Your task to perform on an android device: turn off notifications in google photos Image 0: 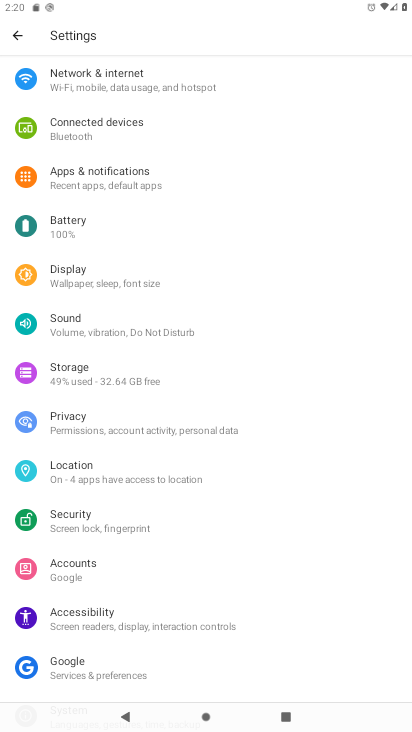
Step 0: press home button
Your task to perform on an android device: turn off notifications in google photos Image 1: 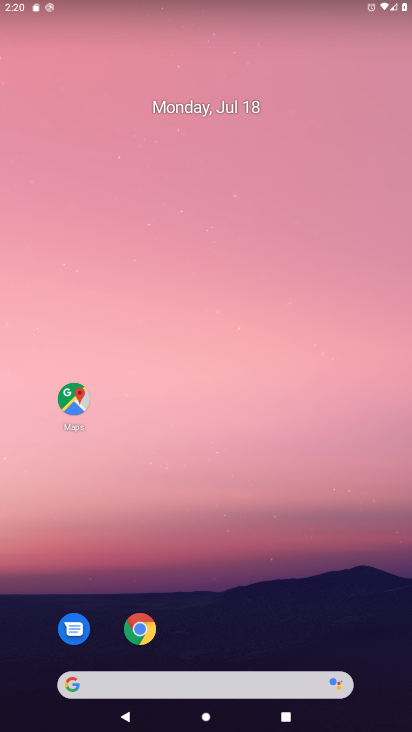
Step 1: drag from (226, 495) to (250, 19)
Your task to perform on an android device: turn off notifications in google photos Image 2: 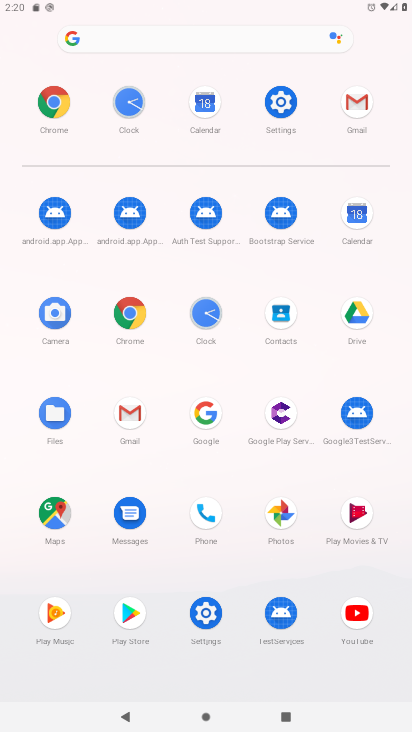
Step 2: click (275, 114)
Your task to perform on an android device: turn off notifications in google photos Image 3: 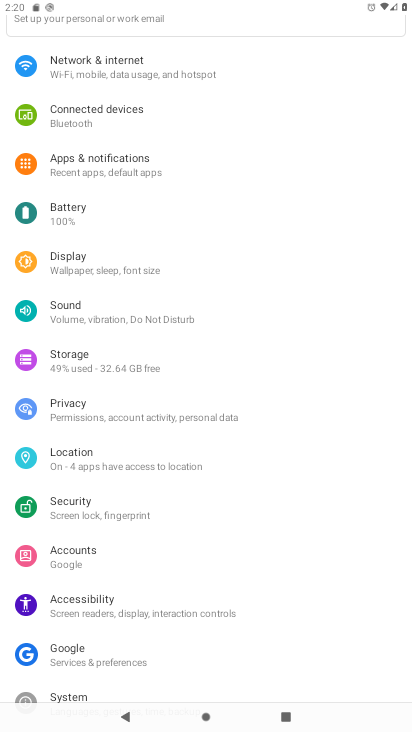
Step 3: click (115, 176)
Your task to perform on an android device: turn off notifications in google photos Image 4: 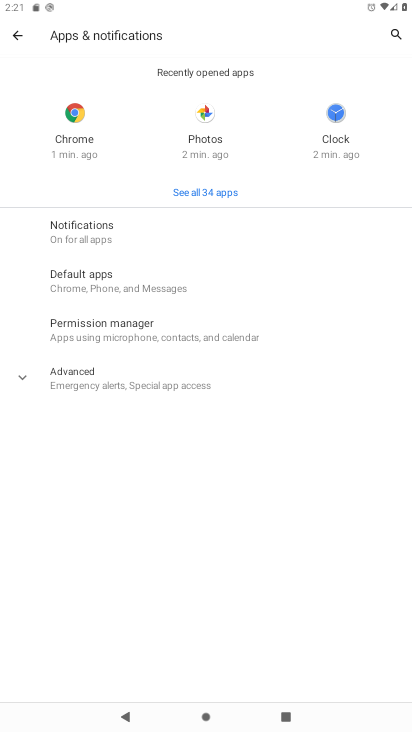
Step 4: press home button
Your task to perform on an android device: turn off notifications in google photos Image 5: 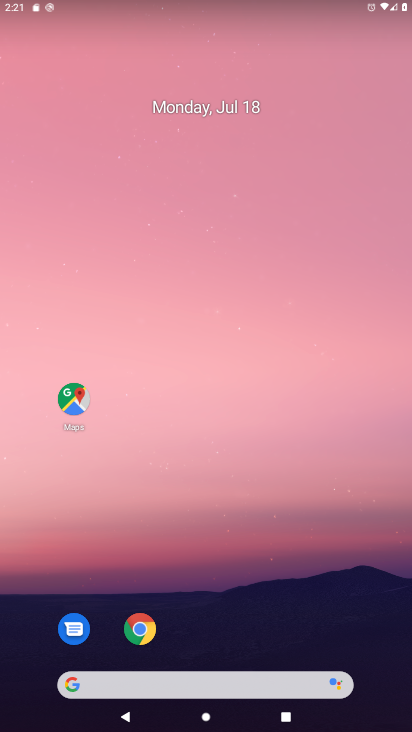
Step 5: drag from (198, 546) to (206, 272)
Your task to perform on an android device: turn off notifications in google photos Image 6: 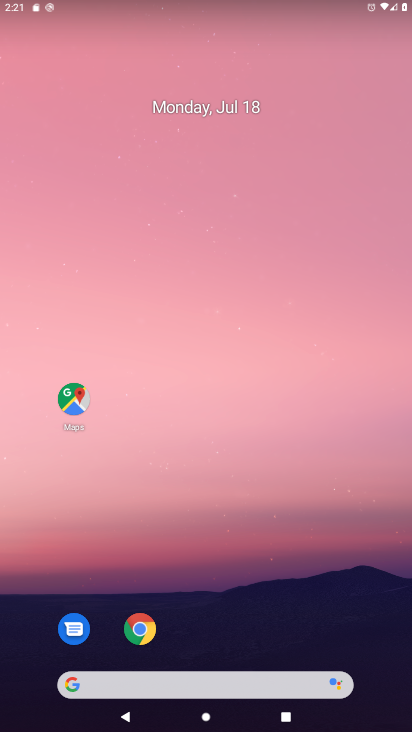
Step 6: drag from (217, 515) to (226, 241)
Your task to perform on an android device: turn off notifications in google photos Image 7: 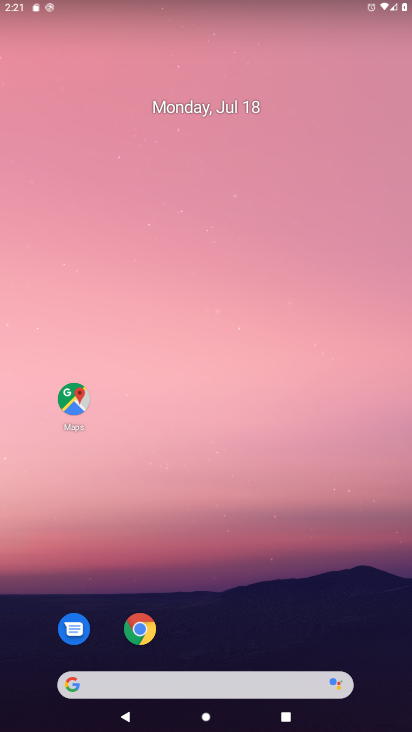
Step 7: drag from (197, 78) to (212, 32)
Your task to perform on an android device: turn off notifications in google photos Image 8: 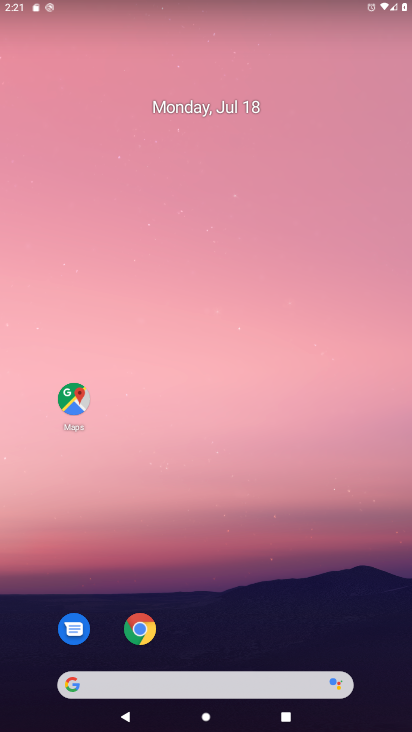
Step 8: drag from (185, 430) to (183, 21)
Your task to perform on an android device: turn off notifications in google photos Image 9: 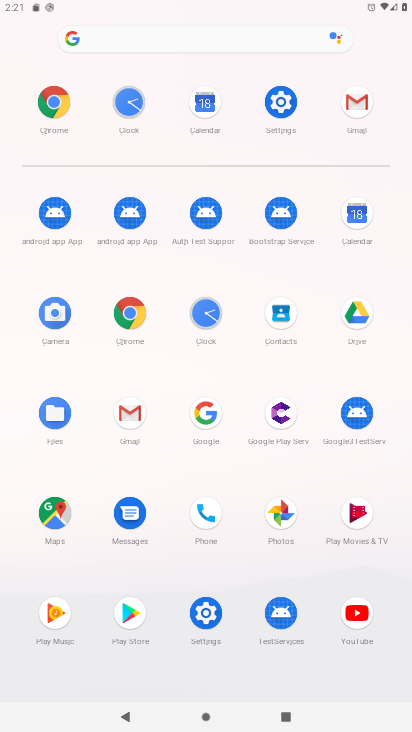
Step 9: click (280, 518)
Your task to perform on an android device: turn off notifications in google photos Image 10: 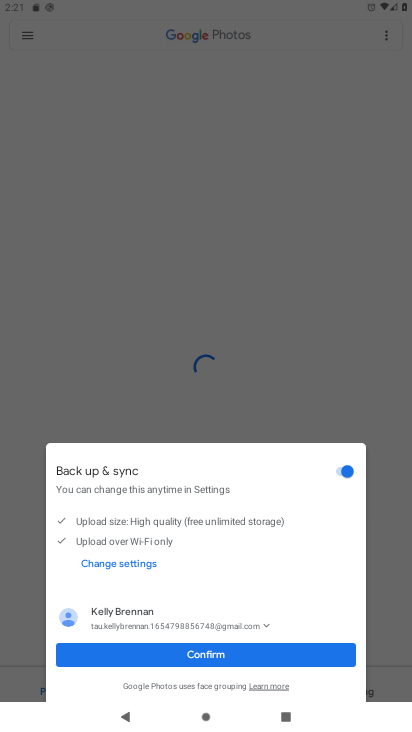
Step 10: click (204, 650)
Your task to perform on an android device: turn off notifications in google photos Image 11: 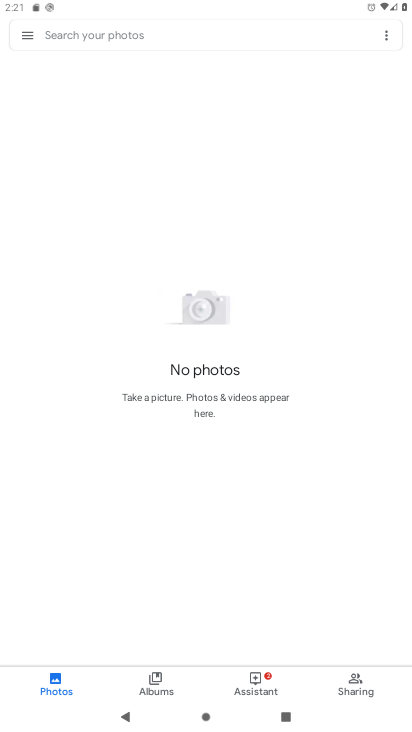
Step 11: click (23, 33)
Your task to perform on an android device: turn off notifications in google photos Image 12: 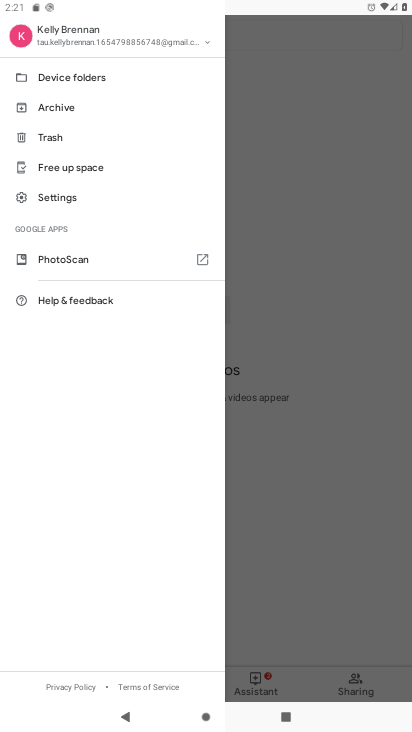
Step 12: click (64, 193)
Your task to perform on an android device: turn off notifications in google photos Image 13: 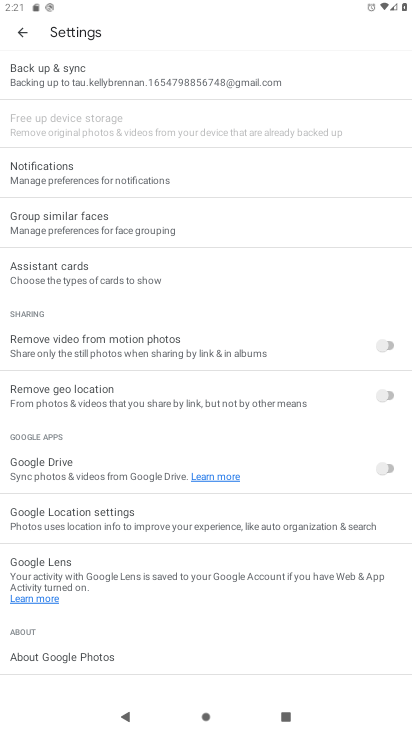
Step 13: click (51, 189)
Your task to perform on an android device: turn off notifications in google photos Image 14: 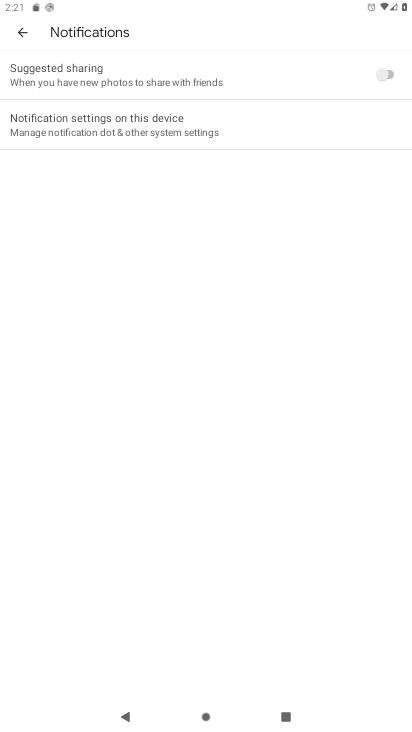
Step 14: task complete